Your task to perform on an android device: change your default location settings in chrome Image 0: 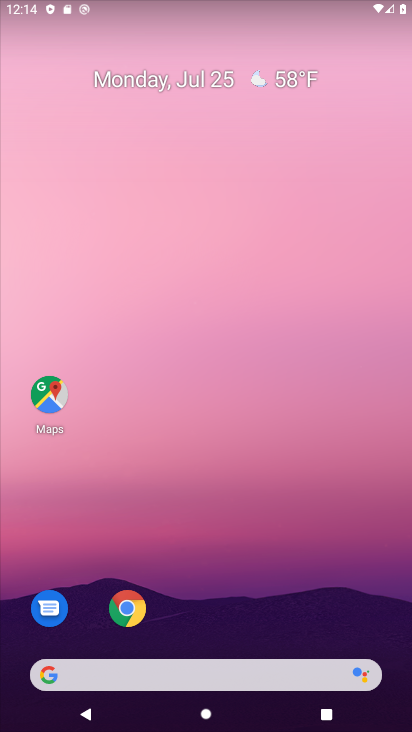
Step 0: drag from (251, 618) to (227, 192)
Your task to perform on an android device: change your default location settings in chrome Image 1: 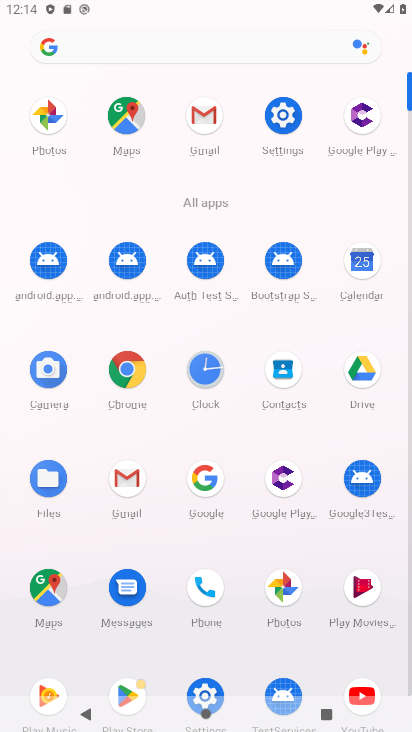
Step 1: click (119, 369)
Your task to perform on an android device: change your default location settings in chrome Image 2: 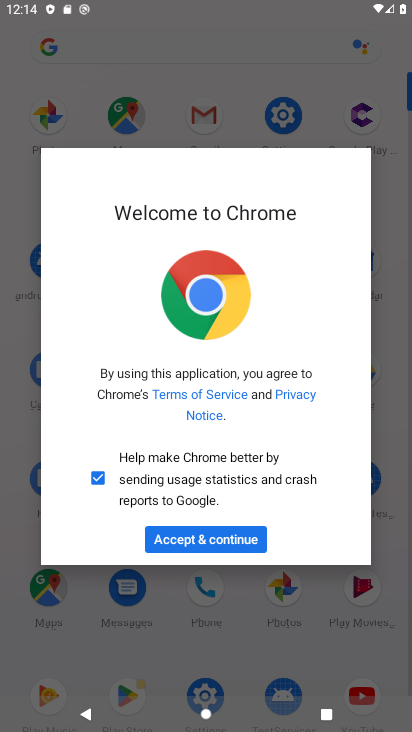
Step 2: click (241, 549)
Your task to perform on an android device: change your default location settings in chrome Image 3: 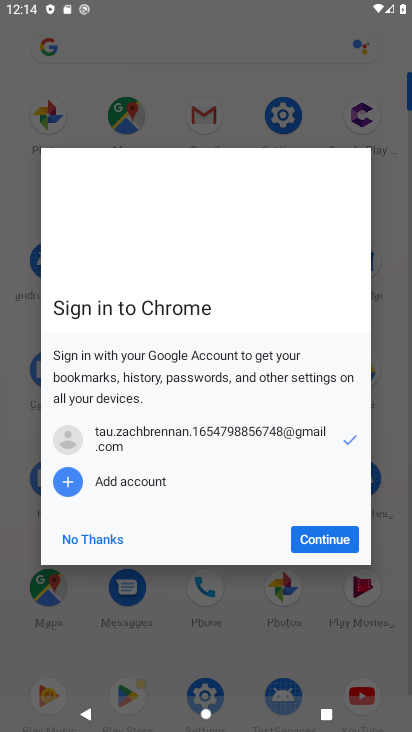
Step 3: click (331, 537)
Your task to perform on an android device: change your default location settings in chrome Image 4: 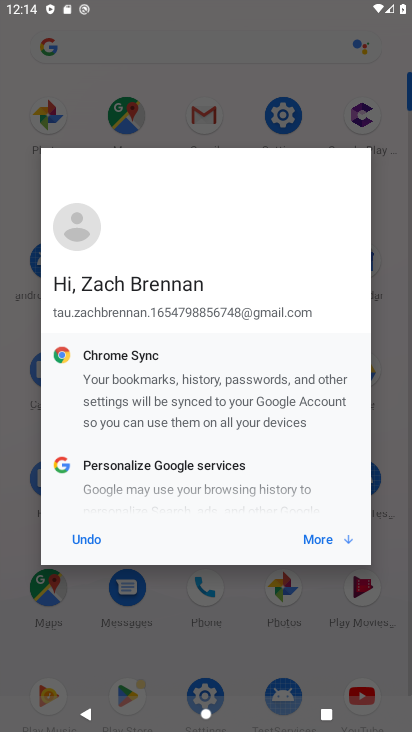
Step 4: click (331, 537)
Your task to perform on an android device: change your default location settings in chrome Image 5: 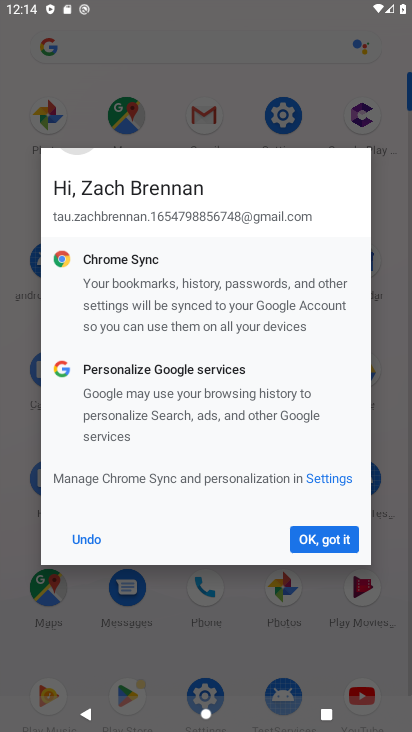
Step 5: click (331, 537)
Your task to perform on an android device: change your default location settings in chrome Image 6: 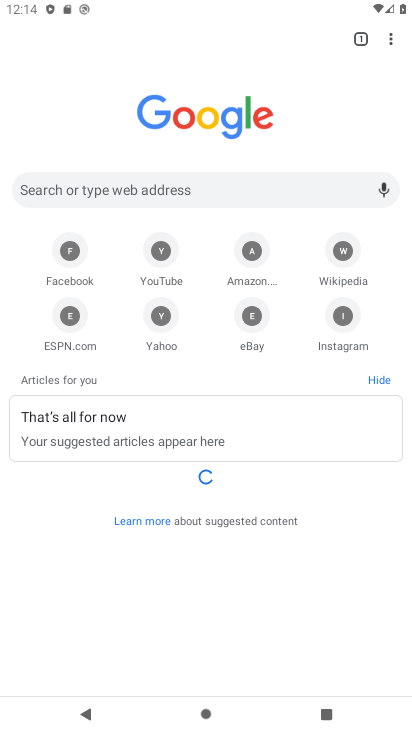
Step 6: click (396, 32)
Your task to perform on an android device: change your default location settings in chrome Image 7: 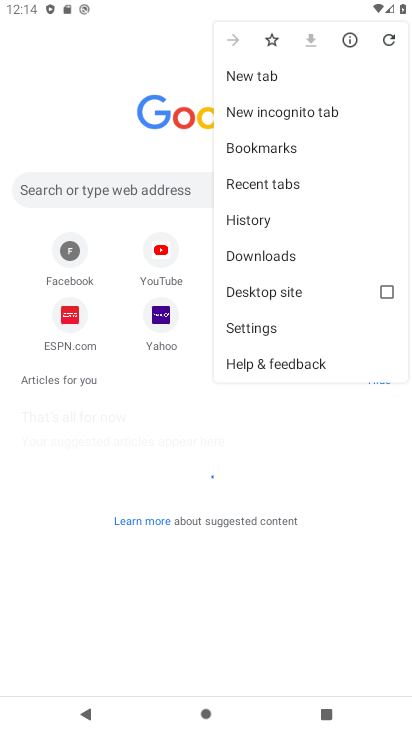
Step 7: click (277, 335)
Your task to perform on an android device: change your default location settings in chrome Image 8: 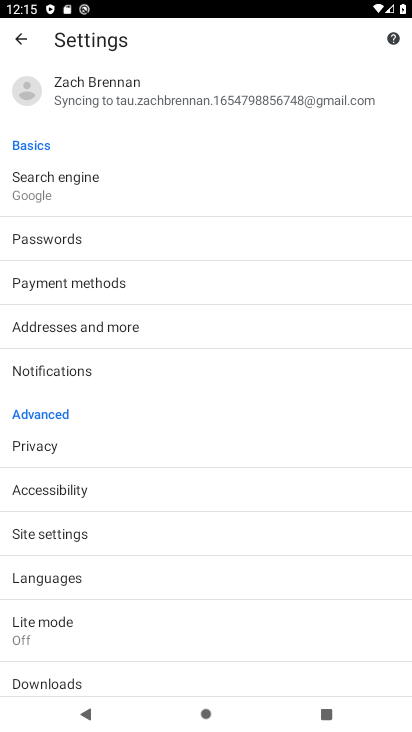
Step 8: click (69, 203)
Your task to perform on an android device: change your default location settings in chrome Image 9: 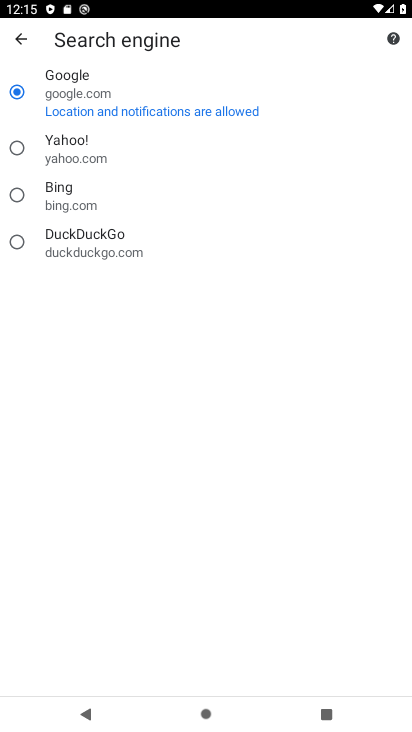
Step 9: click (17, 37)
Your task to perform on an android device: change your default location settings in chrome Image 10: 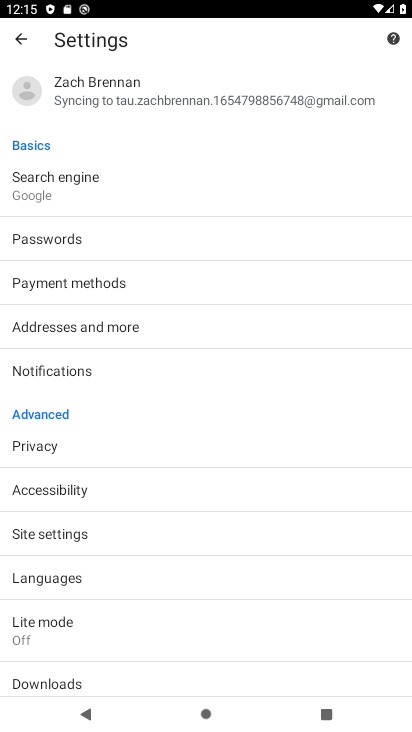
Step 10: drag from (264, 688) to (258, 406)
Your task to perform on an android device: change your default location settings in chrome Image 11: 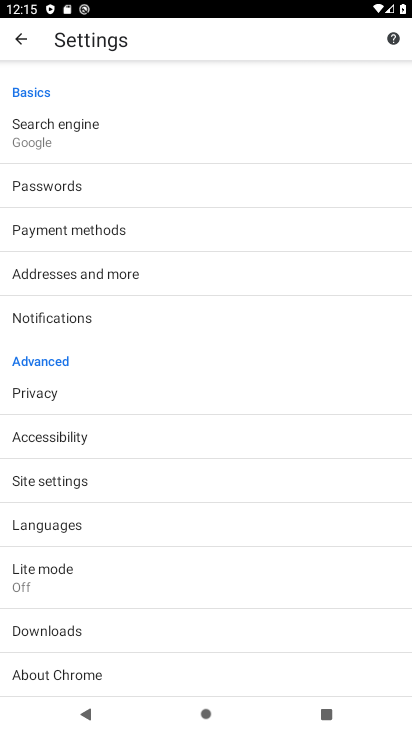
Step 11: click (54, 485)
Your task to perform on an android device: change your default location settings in chrome Image 12: 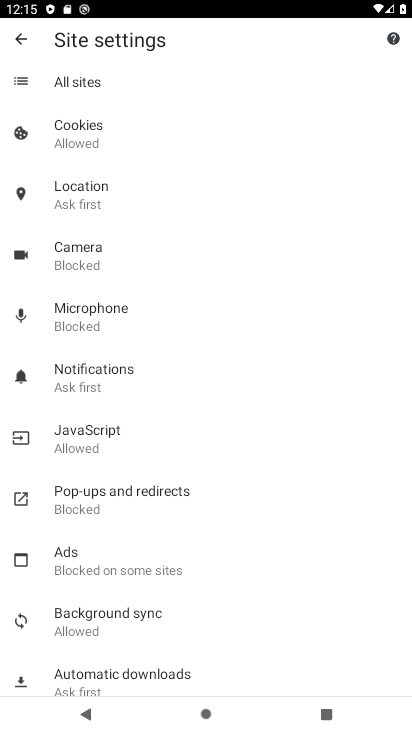
Step 12: click (137, 188)
Your task to perform on an android device: change your default location settings in chrome Image 13: 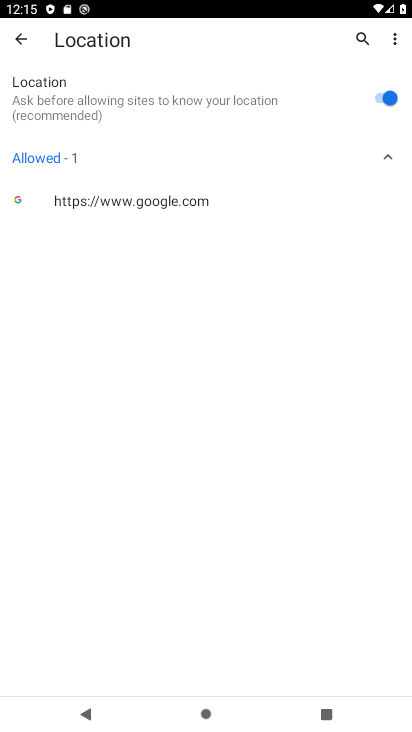
Step 13: click (390, 99)
Your task to perform on an android device: change your default location settings in chrome Image 14: 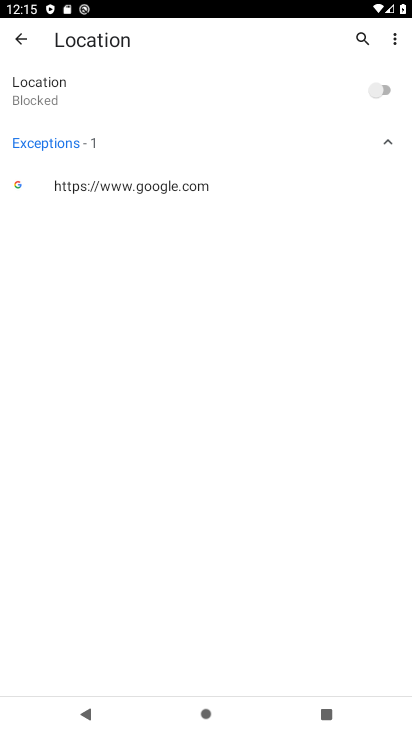
Step 14: task complete